Your task to perform on an android device: check data usage Image 0: 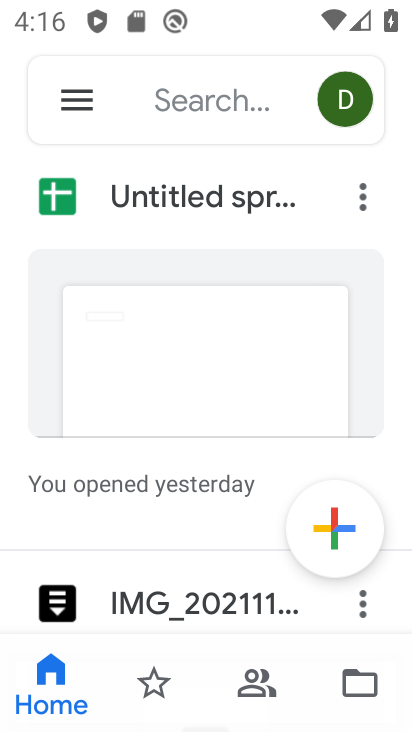
Step 0: press home button
Your task to perform on an android device: check data usage Image 1: 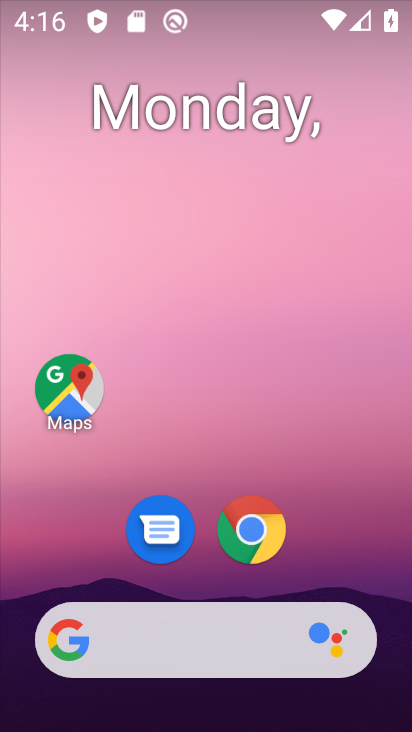
Step 1: drag from (248, 15) to (351, 6)
Your task to perform on an android device: check data usage Image 2: 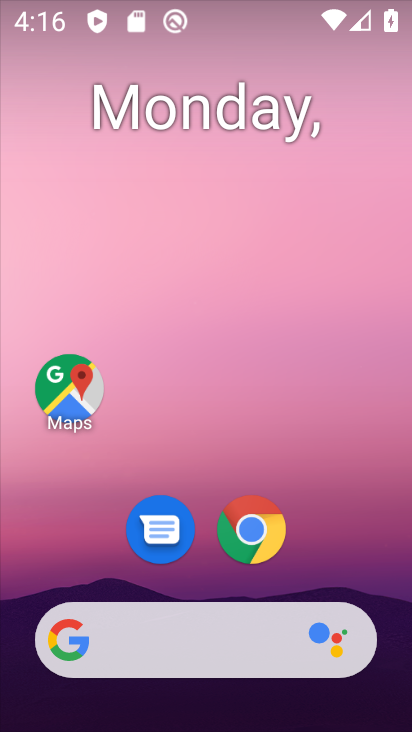
Step 2: drag from (207, 508) to (300, 20)
Your task to perform on an android device: check data usage Image 3: 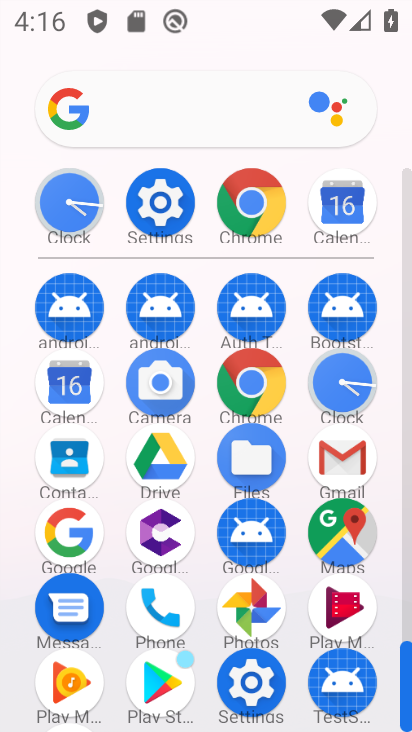
Step 3: click (171, 214)
Your task to perform on an android device: check data usage Image 4: 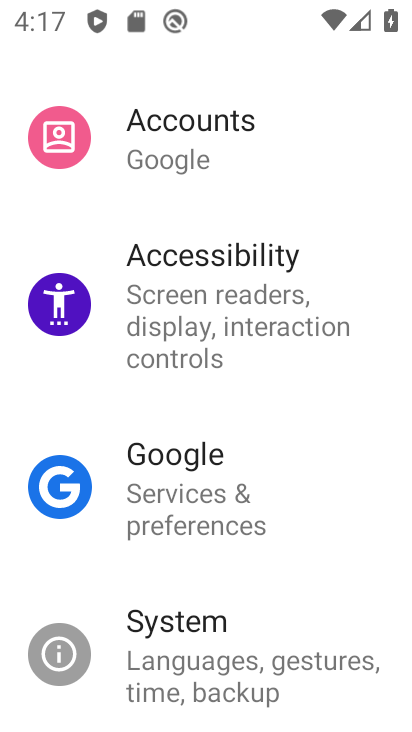
Step 4: drag from (262, 257) to (200, 588)
Your task to perform on an android device: check data usage Image 5: 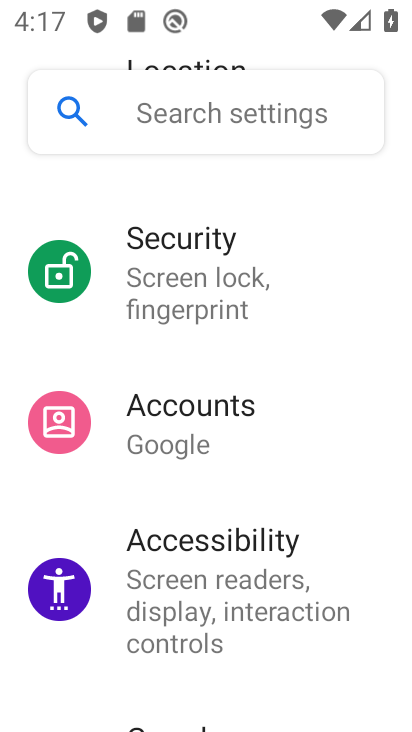
Step 5: drag from (179, 286) to (184, 558)
Your task to perform on an android device: check data usage Image 6: 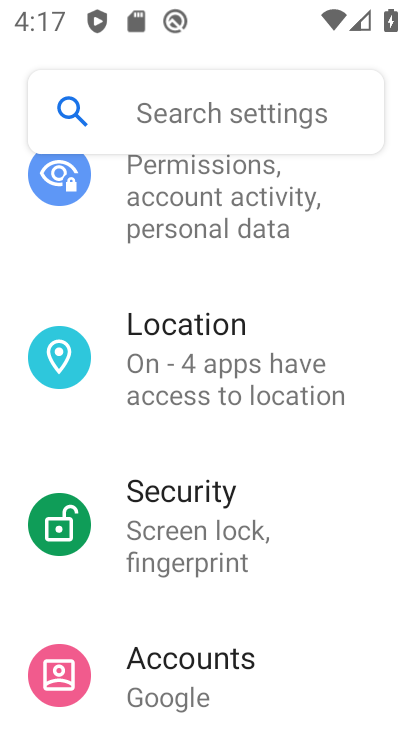
Step 6: drag from (227, 337) to (208, 691)
Your task to perform on an android device: check data usage Image 7: 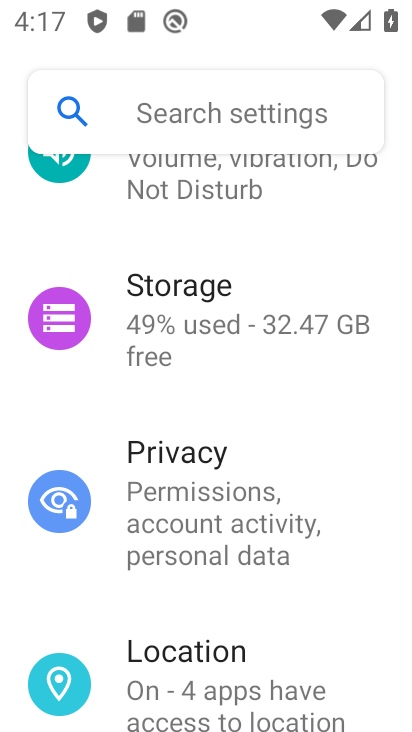
Step 7: drag from (275, 295) to (255, 541)
Your task to perform on an android device: check data usage Image 8: 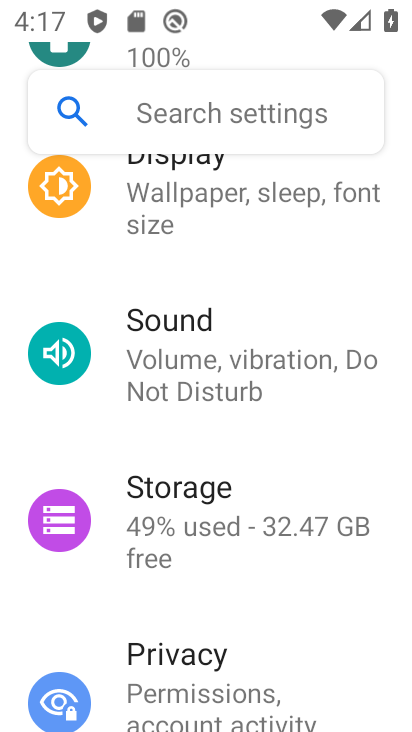
Step 8: drag from (292, 405) to (222, 715)
Your task to perform on an android device: check data usage Image 9: 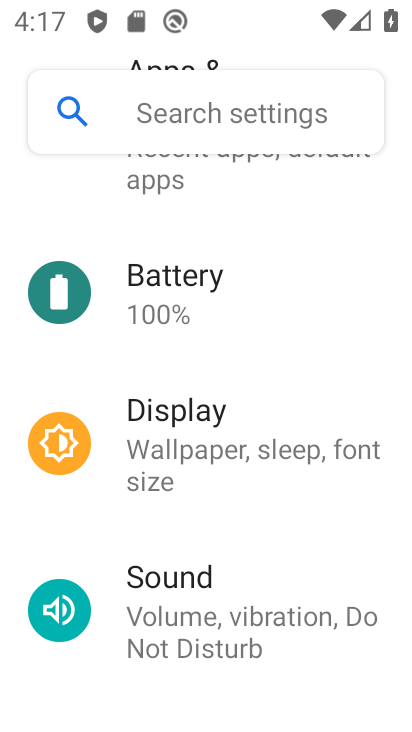
Step 9: drag from (221, 302) to (211, 474)
Your task to perform on an android device: check data usage Image 10: 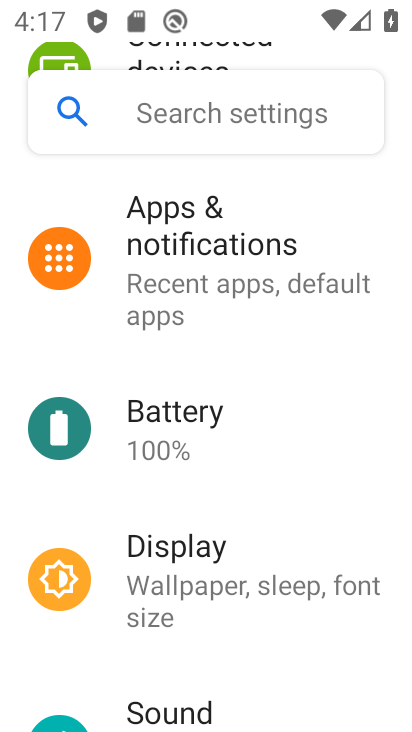
Step 10: drag from (276, 343) to (268, 509)
Your task to perform on an android device: check data usage Image 11: 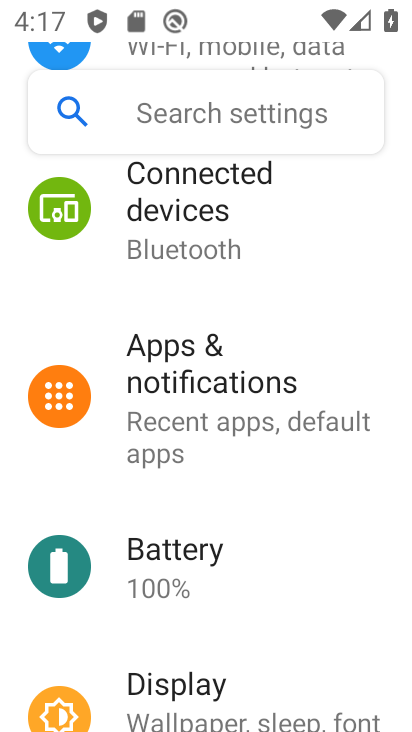
Step 11: drag from (265, 329) to (259, 637)
Your task to perform on an android device: check data usage Image 12: 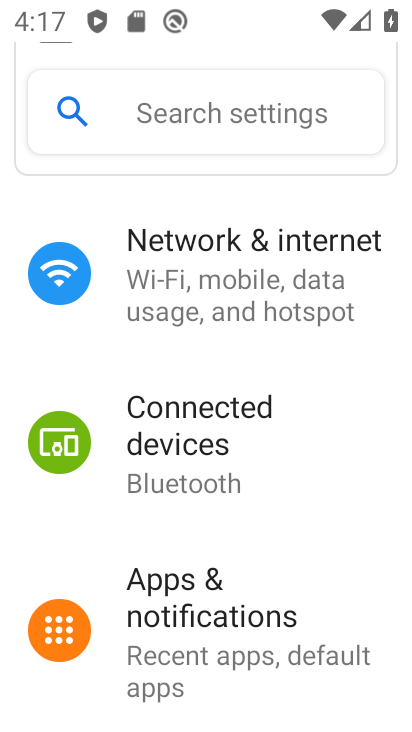
Step 12: click (241, 302)
Your task to perform on an android device: check data usage Image 13: 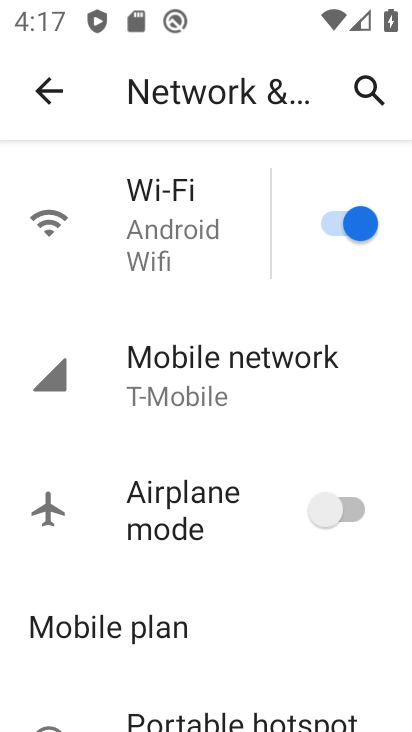
Step 13: click (195, 372)
Your task to perform on an android device: check data usage Image 14: 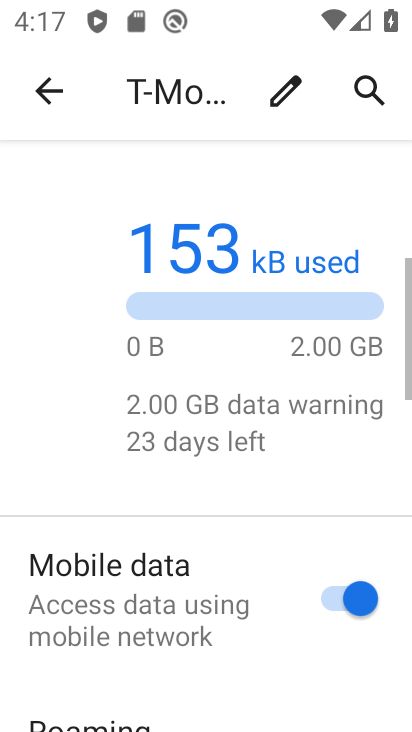
Step 14: drag from (210, 519) to (314, 157)
Your task to perform on an android device: check data usage Image 15: 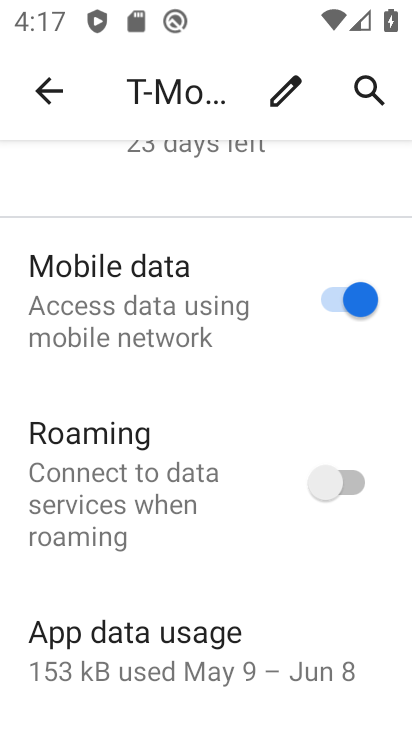
Step 15: click (189, 496)
Your task to perform on an android device: check data usage Image 16: 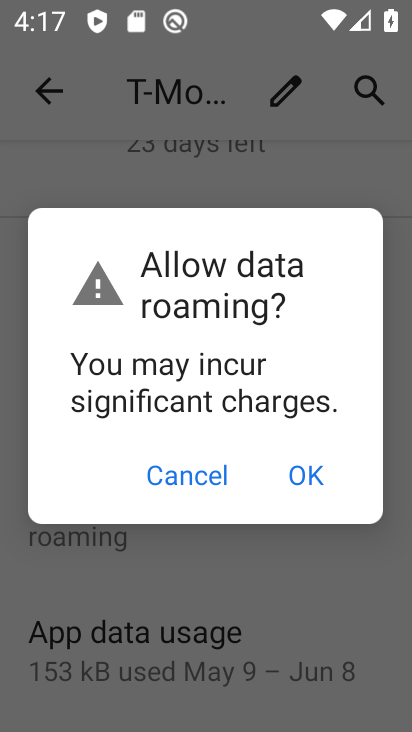
Step 16: click (147, 637)
Your task to perform on an android device: check data usage Image 17: 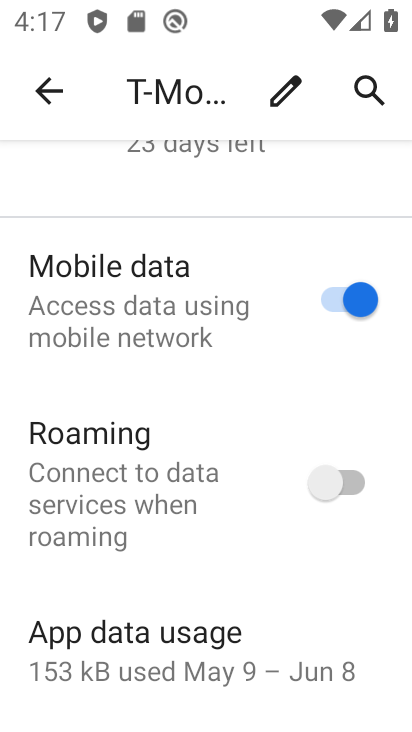
Step 17: click (133, 652)
Your task to perform on an android device: check data usage Image 18: 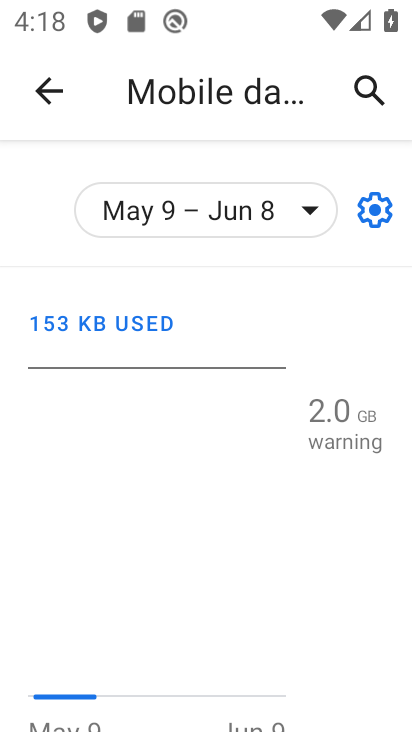
Step 18: task complete